Your task to perform on an android device: move an email to a new category in the gmail app Image 0: 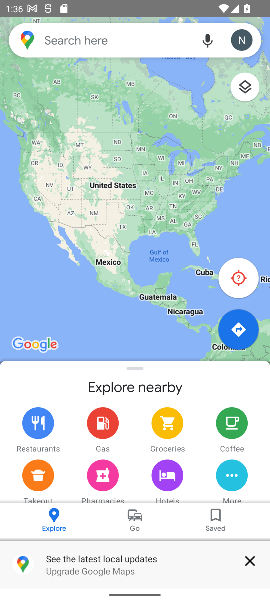
Step 0: task complete